Your task to perform on an android device: Show me recent news Image 0: 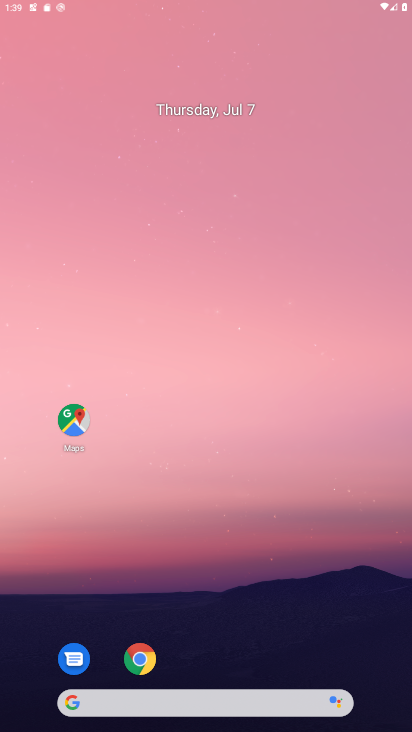
Step 0: click (407, 252)
Your task to perform on an android device: Show me recent news Image 1: 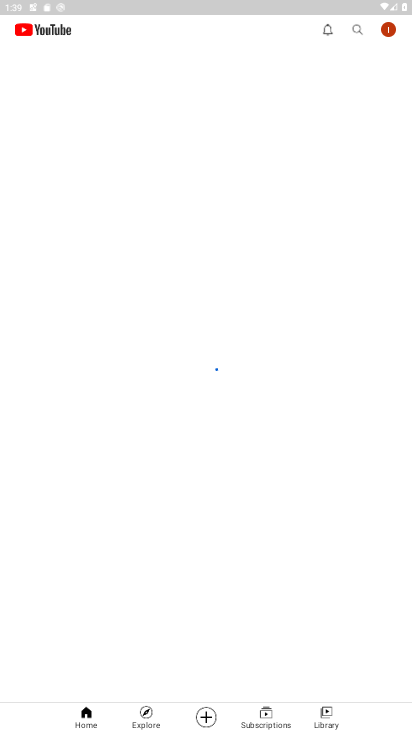
Step 1: press home button
Your task to perform on an android device: Show me recent news Image 2: 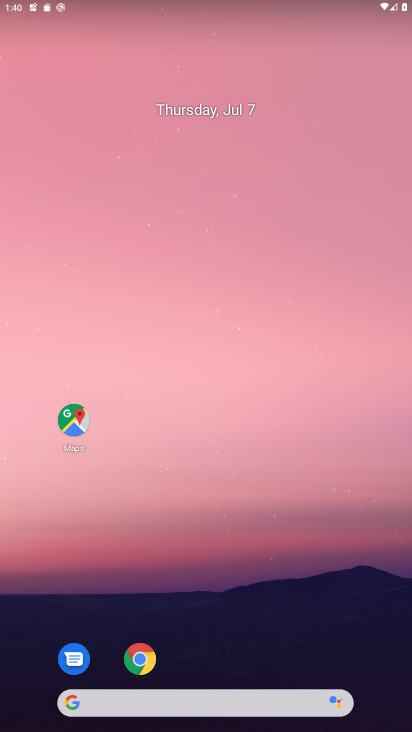
Step 2: drag from (184, 663) to (231, 113)
Your task to perform on an android device: Show me recent news Image 3: 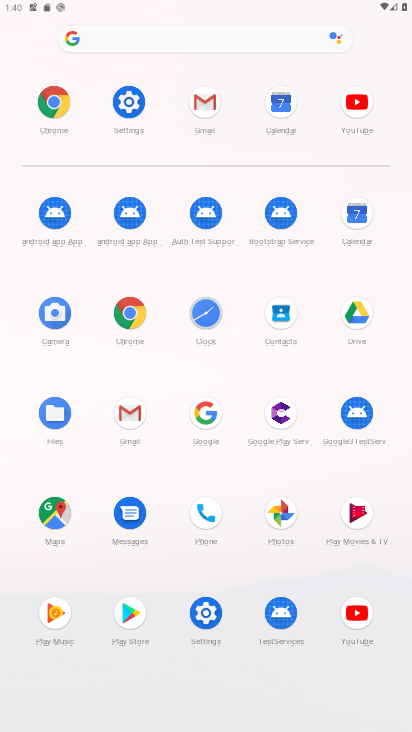
Step 3: click (194, 36)
Your task to perform on an android device: Show me recent news Image 4: 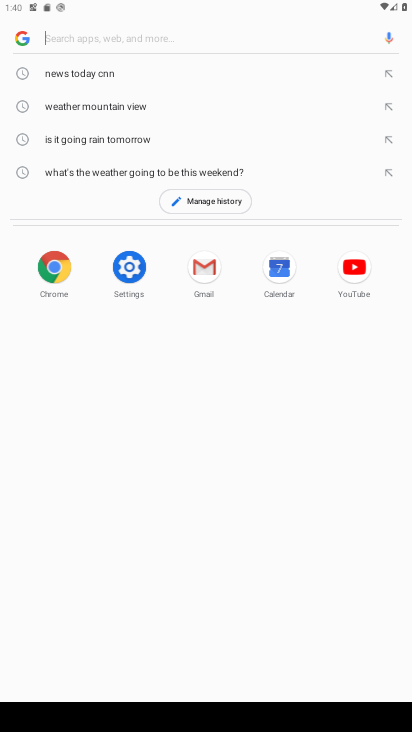
Step 4: click (81, 33)
Your task to perform on an android device: Show me recent news Image 5: 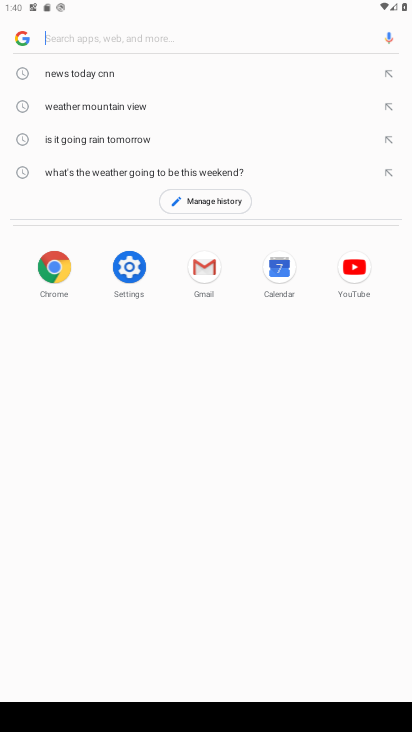
Step 5: type "recent news"
Your task to perform on an android device: Show me recent news Image 6: 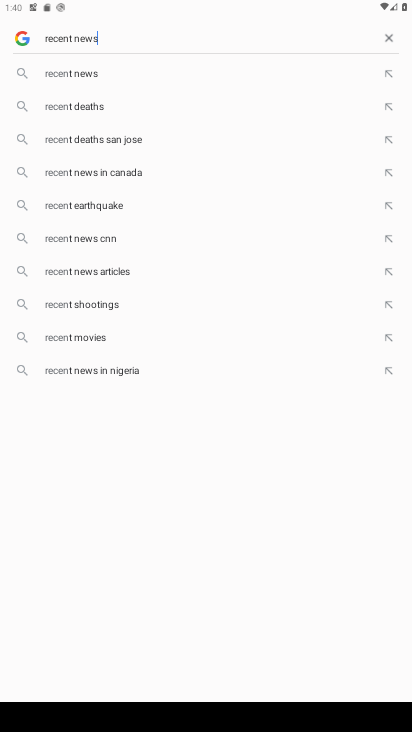
Step 6: type ""
Your task to perform on an android device: Show me recent news Image 7: 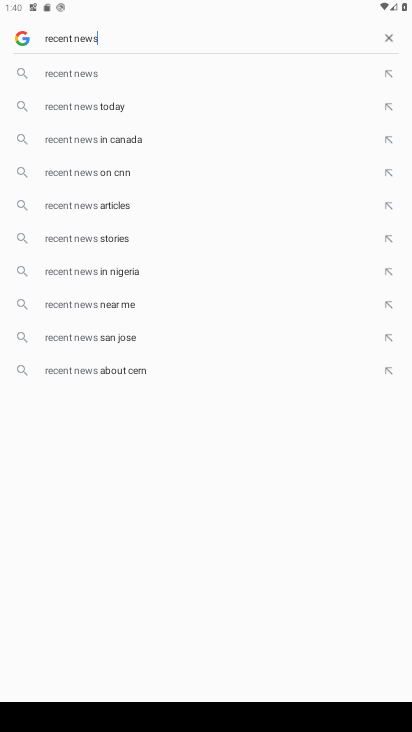
Step 7: click (92, 75)
Your task to perform on an android device: Show me recent news Image 8: 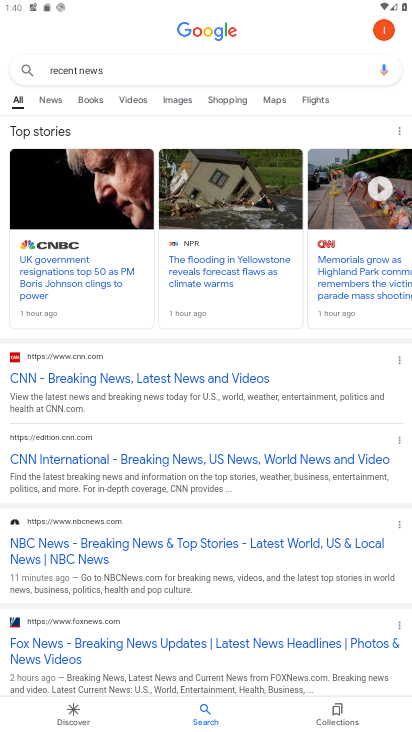
Step 8: click (74, 378)
Your task to perform on an android device: Show me recent news Image 9: 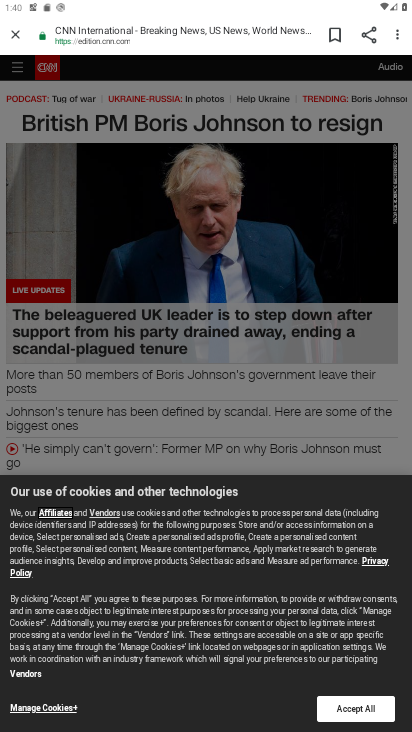
Step 9: task complete